Your task to perform on an android device: allow notifications from all sites in the chrome app Image 0: 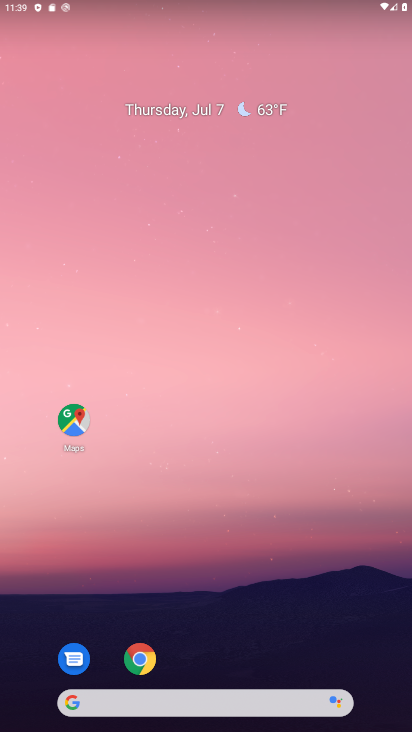
Step 0: drag from (200, 612) to (282, 17)
Your task to perform on an android device: allow notifications from all sites in the chrome app Image 1: 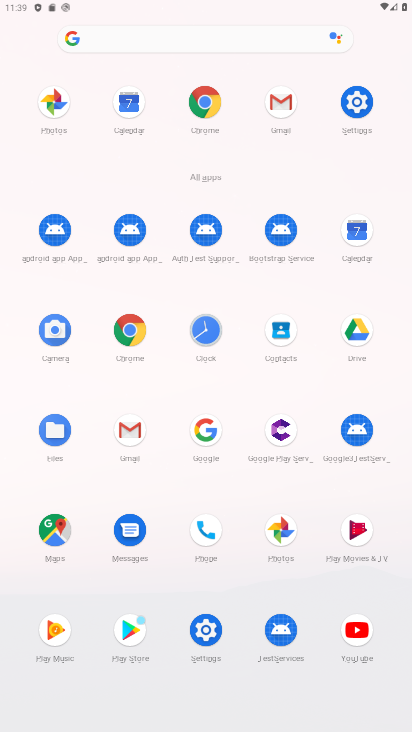
Step 1: click (129, 335)
Your task to perform on an android device: allow notifications from all sites in the chrome app Image 2: 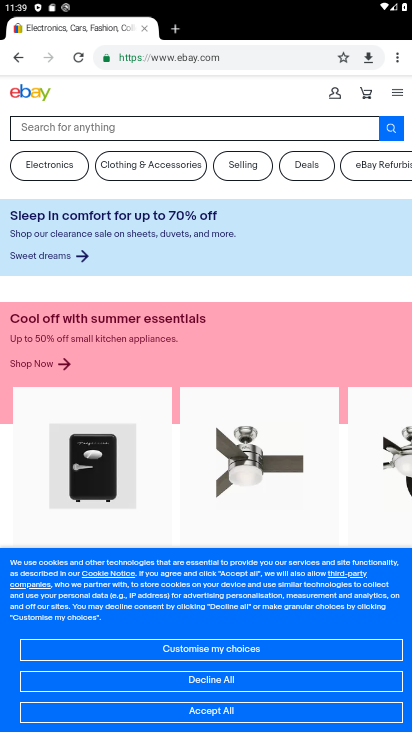
Step 2: click (397, 55)
Your task to perform on an android device: allow notifications from all sites in the chrome app Image 3: 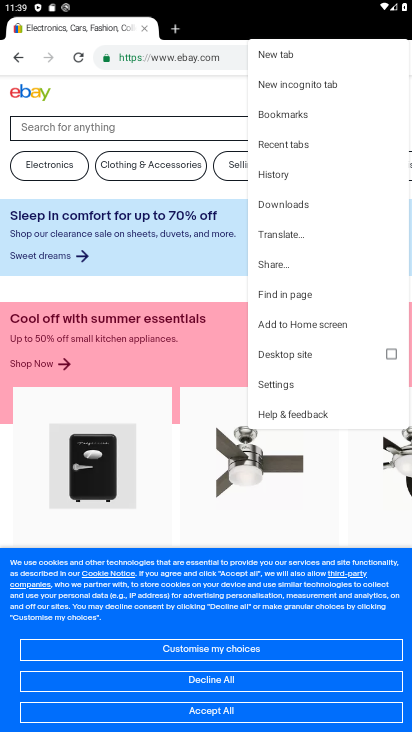
Step 3: click (275, 383)
Your task to perform on an android device: allow notifications from all sites in the chrome app Image 4: 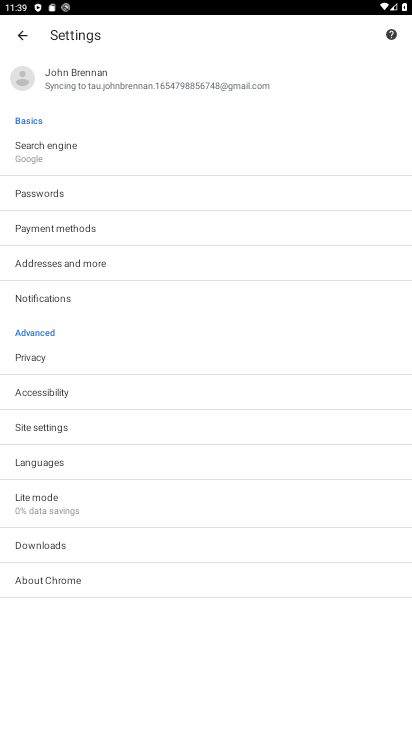
Step 4: click (48, 428)
Your task to perform on an android device: allow notifications from all sites in the chrome app Image 5: 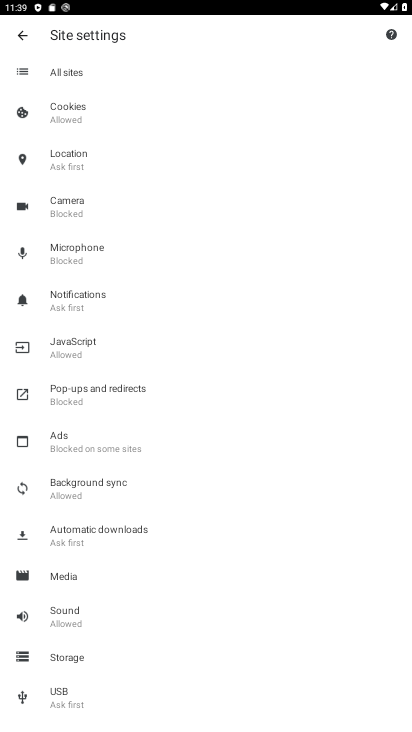
Step 5: drag from (92, 584) to (139, 260)
Your task to perform on an android device: allow notifications from all sites in the chrome app Image 6: 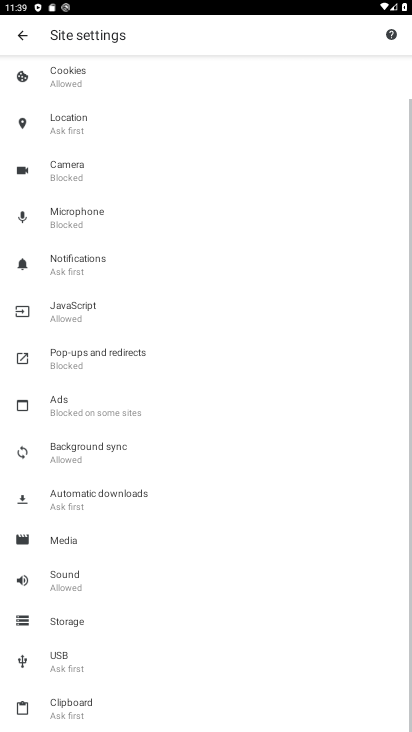
Step 6: drag from (125, 161) to (147, 302)
Your task to perform on an android device: allow notifications from all sites in the chrome app Image 7: 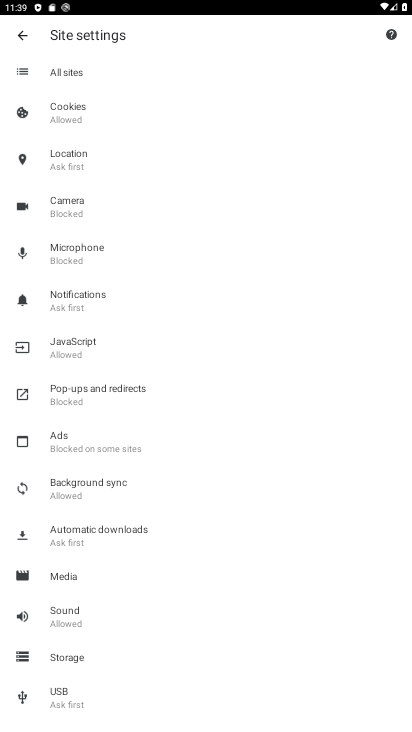
Step 7: click (90, 306)
Your task to perform on an android device: allow notifications from all sites in the chrome app Image 8: 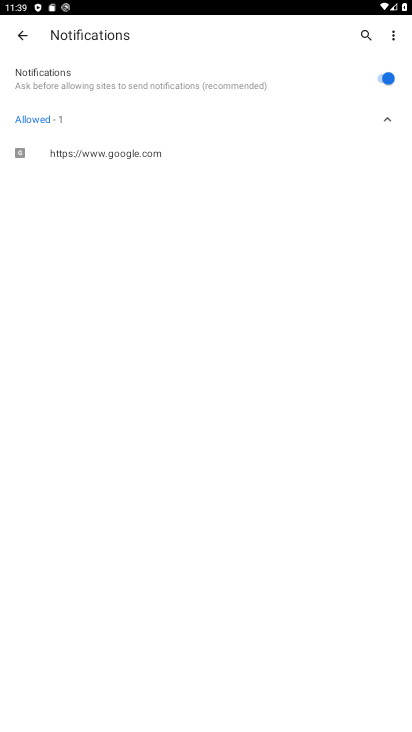
Step 8: task complete